Your task to perform on an android device: Open calendar and show me the fourth week of next month Image 0: 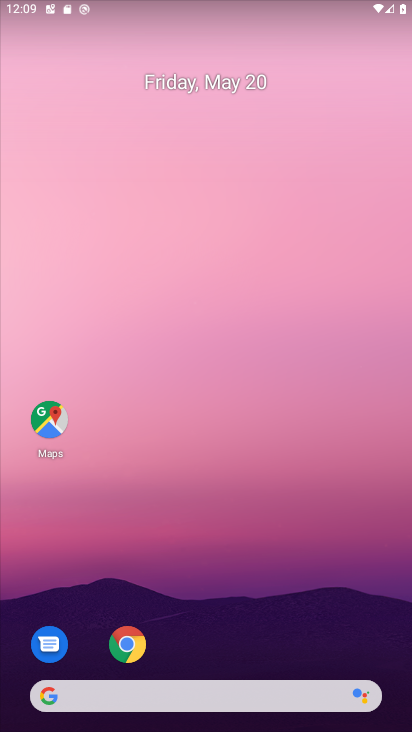
Step 0: drag from (255, 675) to (231, 386)
Your task to perform on an android device: Open calendar and show me the fourth week of next month Image 1: 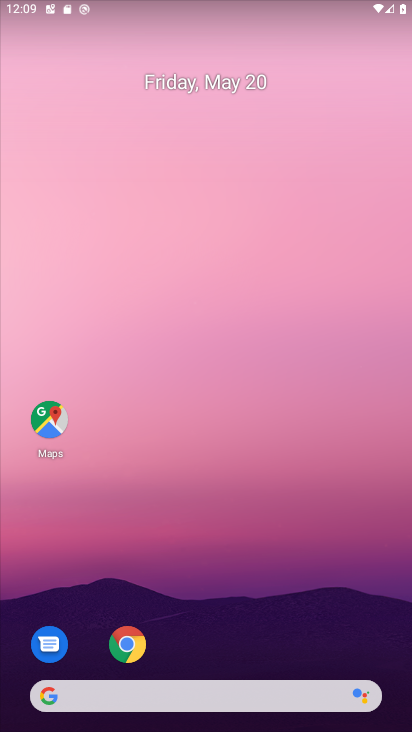
Step 1: drag from (191, 671) to (188, 259)
Your task to perform on an android device: Open calendar and show me the fourth week of next month Image 2: 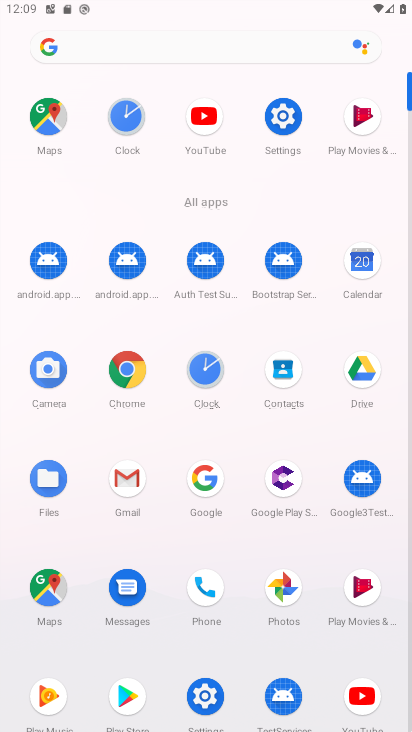
Step 2: click (365, 261)
Your task to perform on an android device: Open calendar and show me the fourth week of next month Image 3: 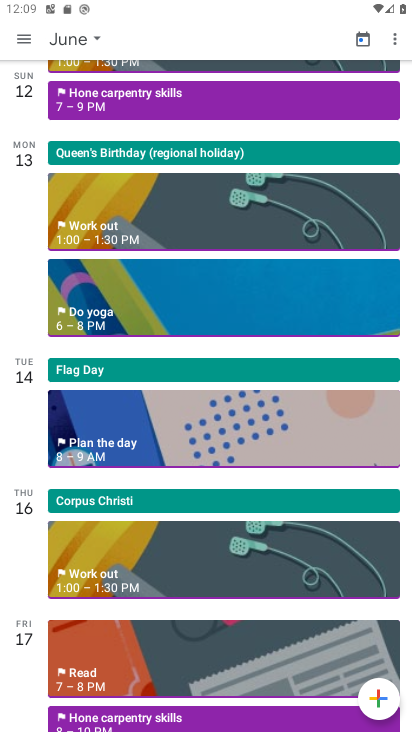
Step 3: click (84, 39)
Your task to perform on an android device: Open calendar and show me the fourth week of next month Image 4: 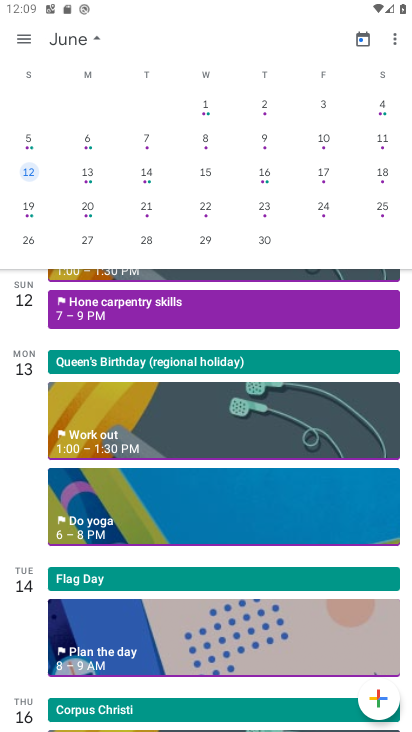
Step 4: click (25, 206)
Your task to perform on an android device: Open calendar and show me the fourth week of next month Image 5: 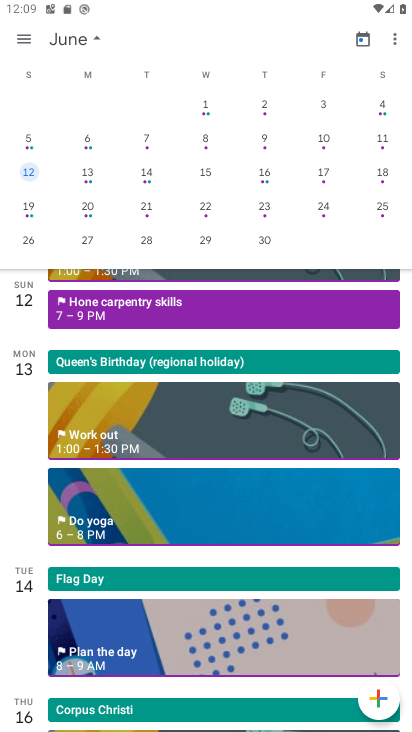
Step 5: click (30, 209)
Your task to perform on an android device: Open calendar and show me the fourth week of next month Image 6: 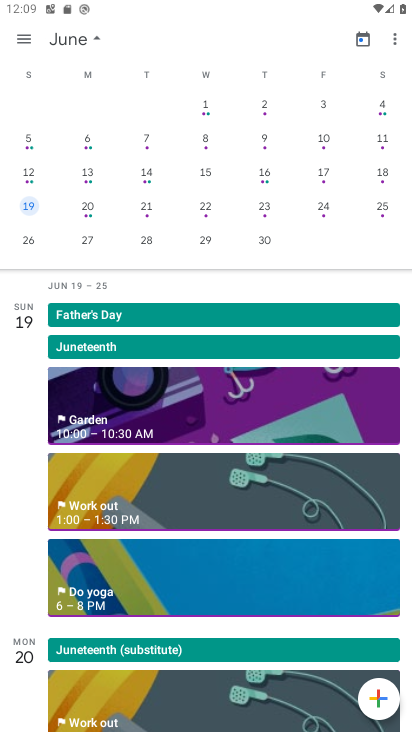
Step 6: task complete